Your task to perform on an android device: Open display settings Image 0: 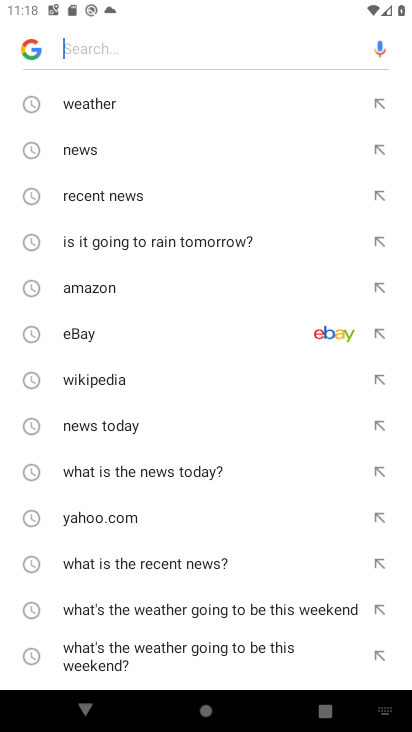
Step 0: press home button
Your task to perform on an android device: Open display settings Image 1: 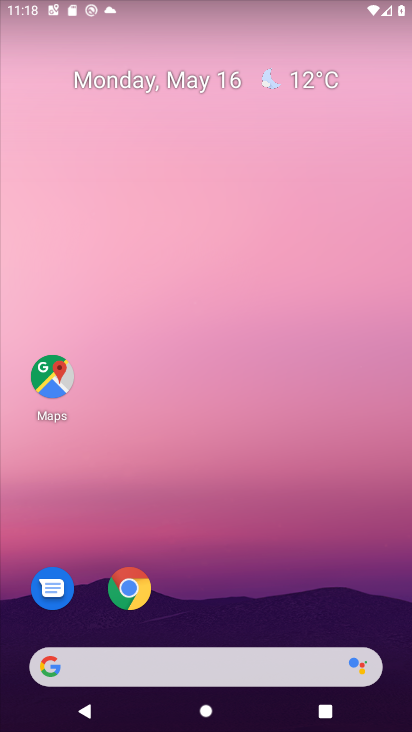
Step 1: drag from (211, 618) to (273, 62)
Your task to perform on an android device: Open display settings Image 2: 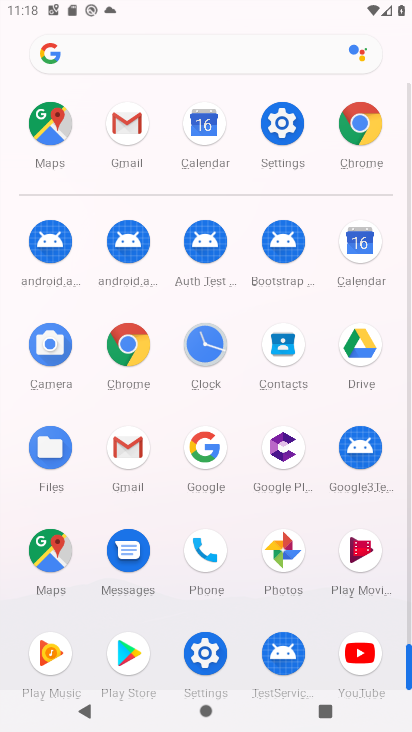
Step 2: click (283, 111)
Your task to perform on an android device: Open display settings Image 3: 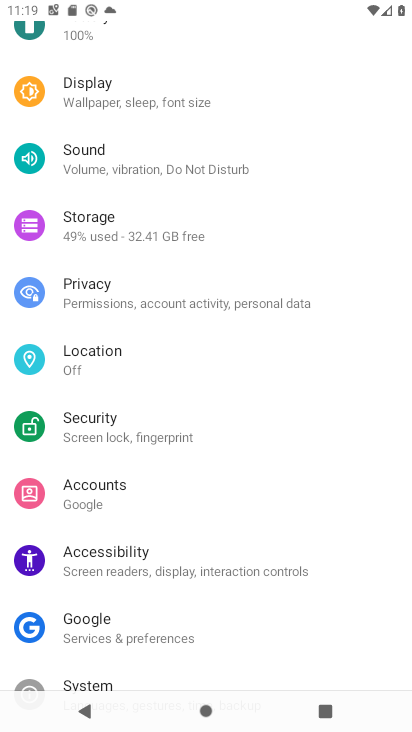
Step 3: click (129, 93)
Your task to perform on an android device: Open display settings Image 4: 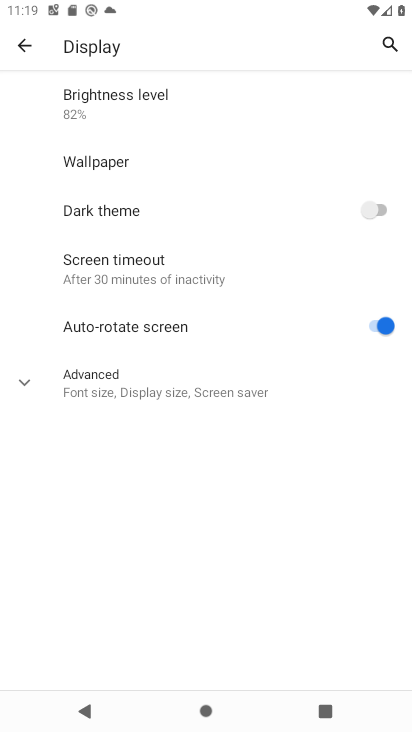
Step 4: click (29, 381)
Your task to perform on an android device: Open display settings Image 5: 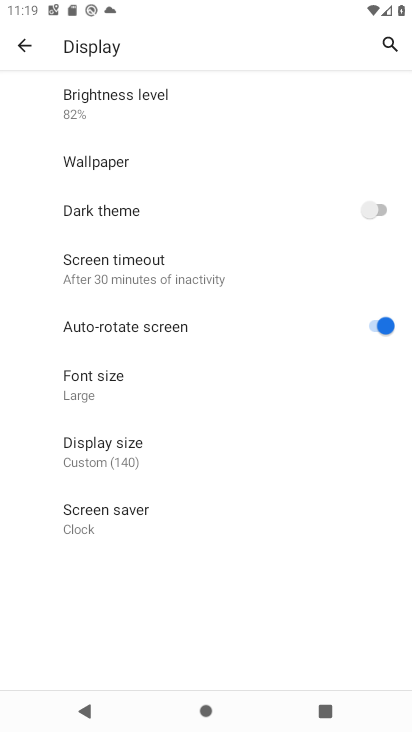
Step 5: task complete